Your task to perform on an android device: open app "LiveIn - Share Your Moment" (install if not already installed), go to login, and select forgot password Image 0: 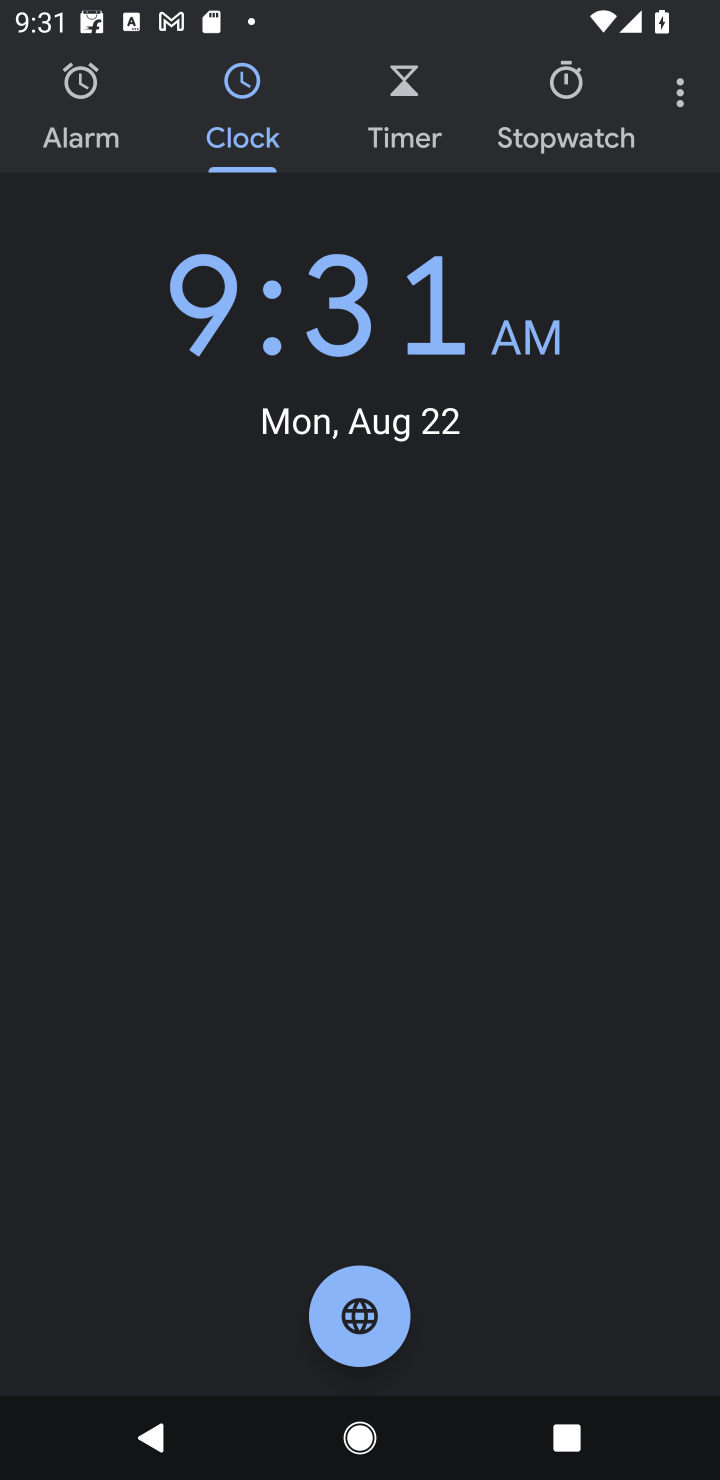
Step 0: press home button
Your task to perform on an android device: open app "LiveIn - Share Your Moment" (install if not already installed), go to login, and select forgot password Image 1: 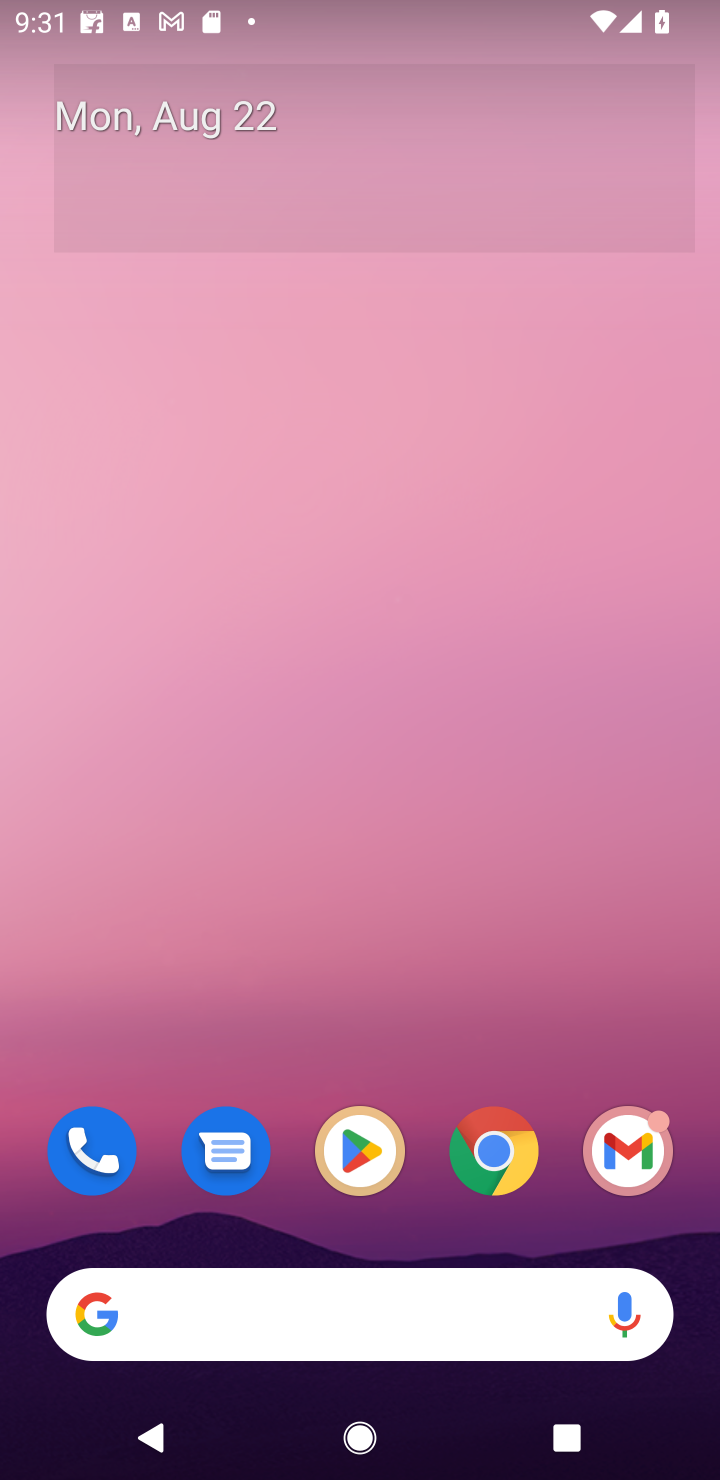
Step 1: click (349, 1167)
Your task to perform on an android device: open app "LiveIn - Share Your Moment" (install if not already installed), go to login, and select forgot password Image 2: 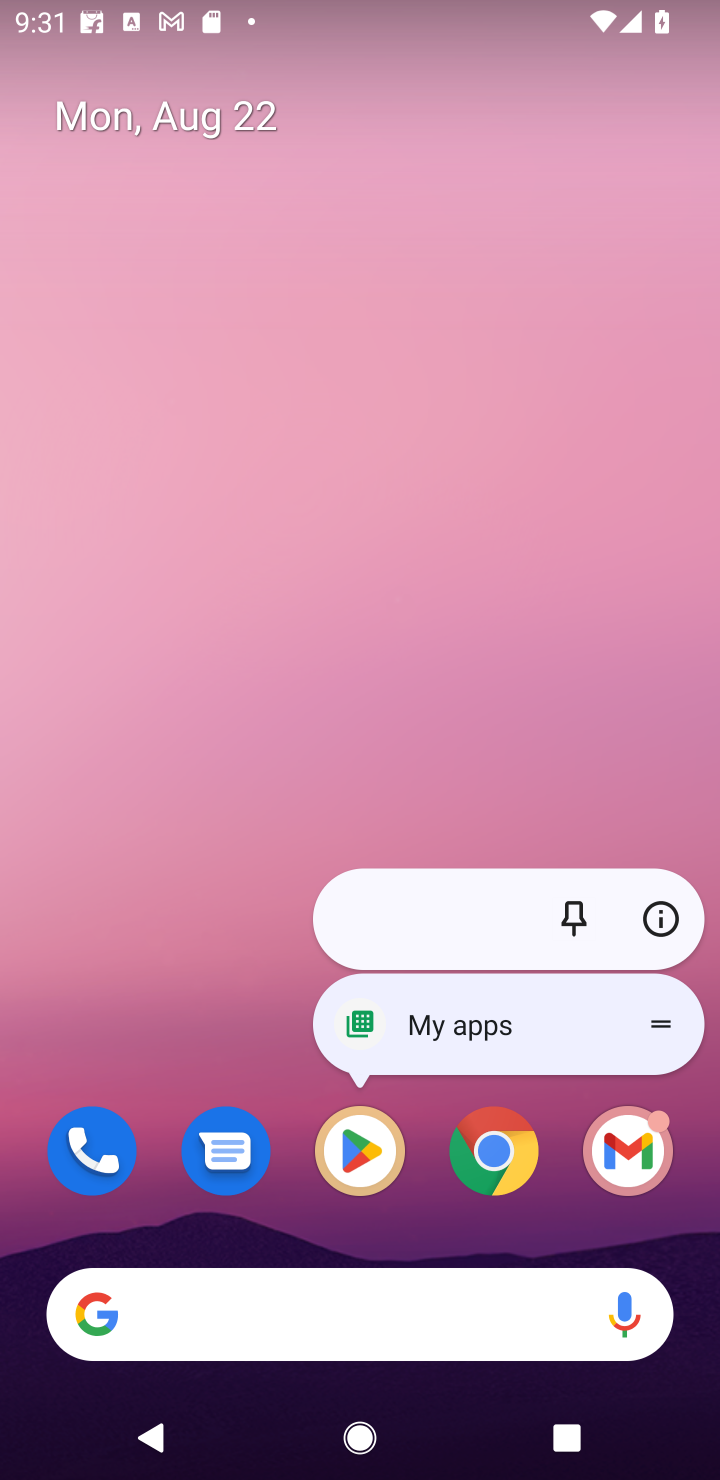
Step 2: click (349, 1163)
Your task to perform on an android device: open app "LiveIn - Share Your Moment" (install if not already installed), go to login, and select forgot password Image 3: 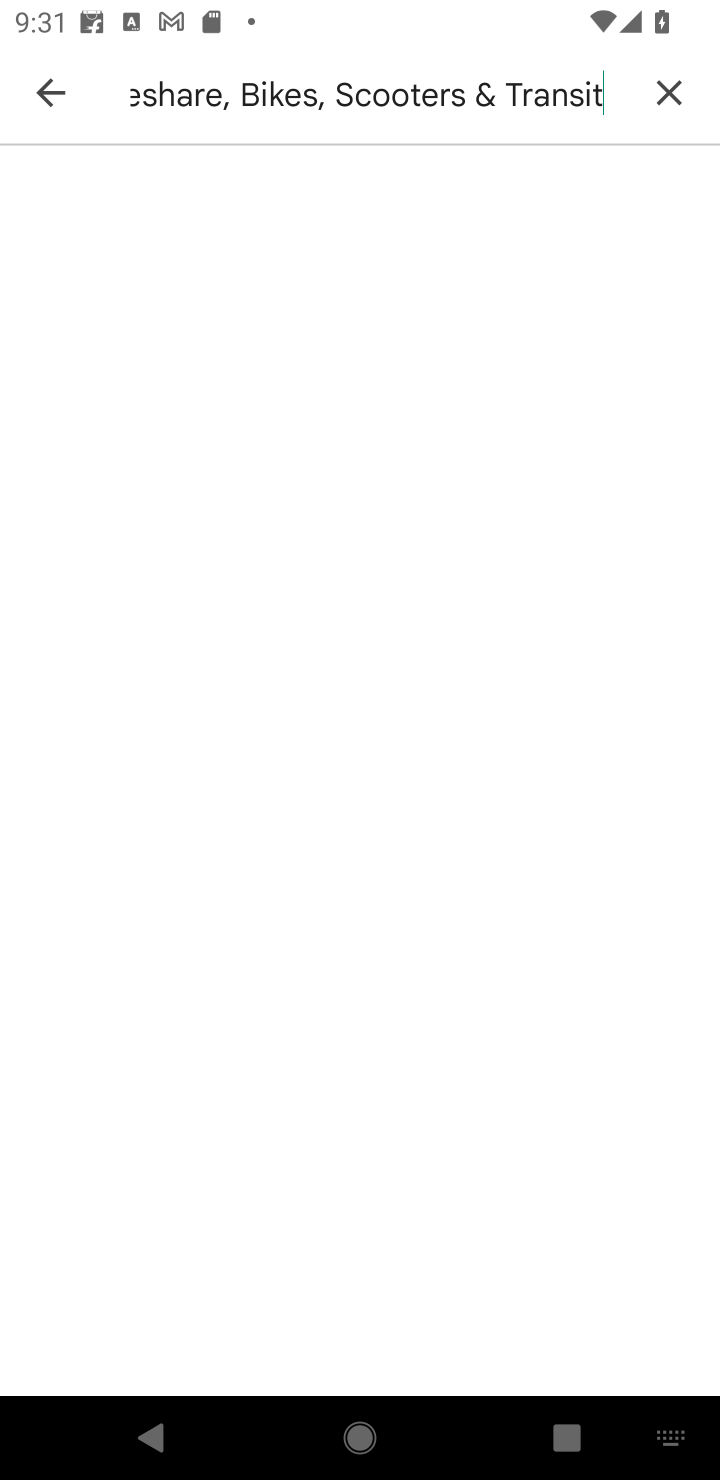
Step 3: click (674, 64)
Your task to perform on an android device: open app "LiveIn - Share Your Moment" (install if not already installed), go to login, and select forgot password Image 4: 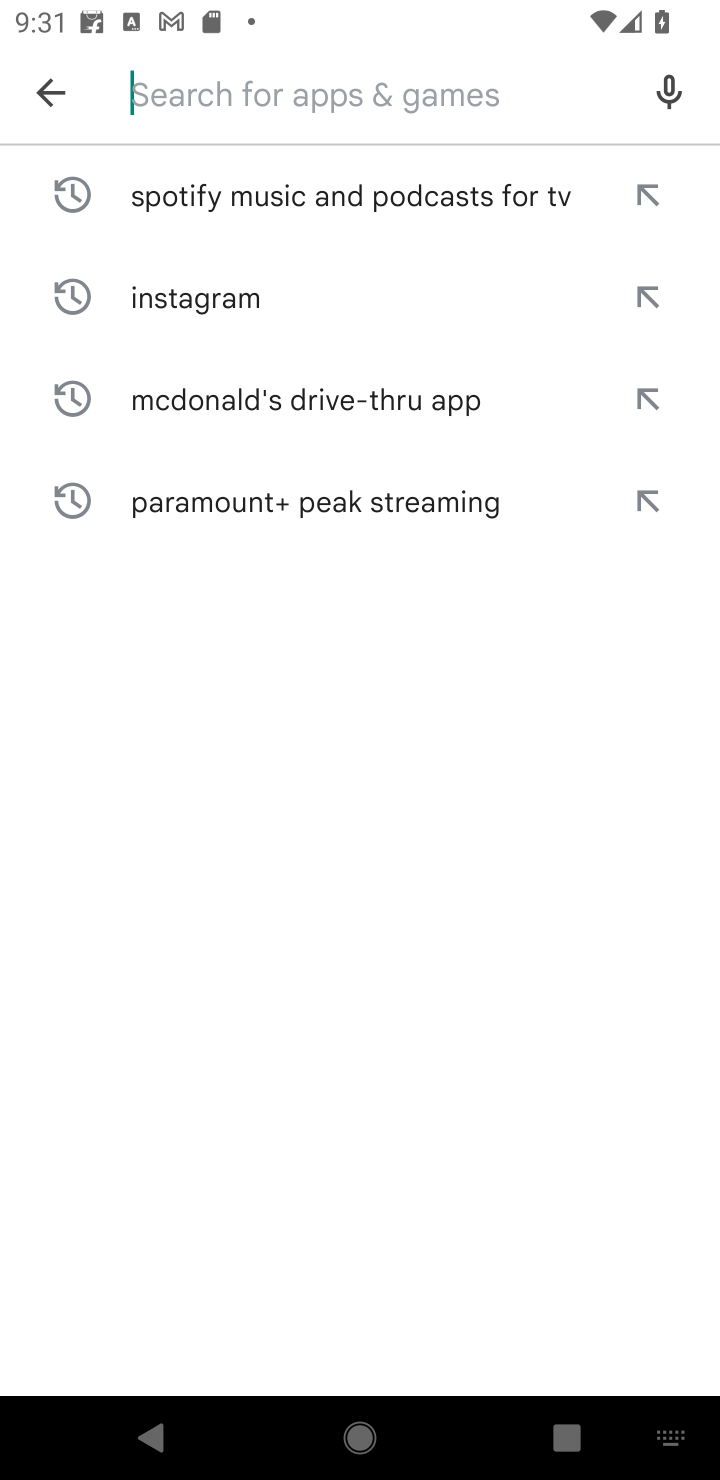
Step 4: type "LiveIn - Share Your Moment"
Your task to perform on an android device: open app "LiveIn - Share Your Moment" (install if not already installed), go to login, and select forgot password Image 5: 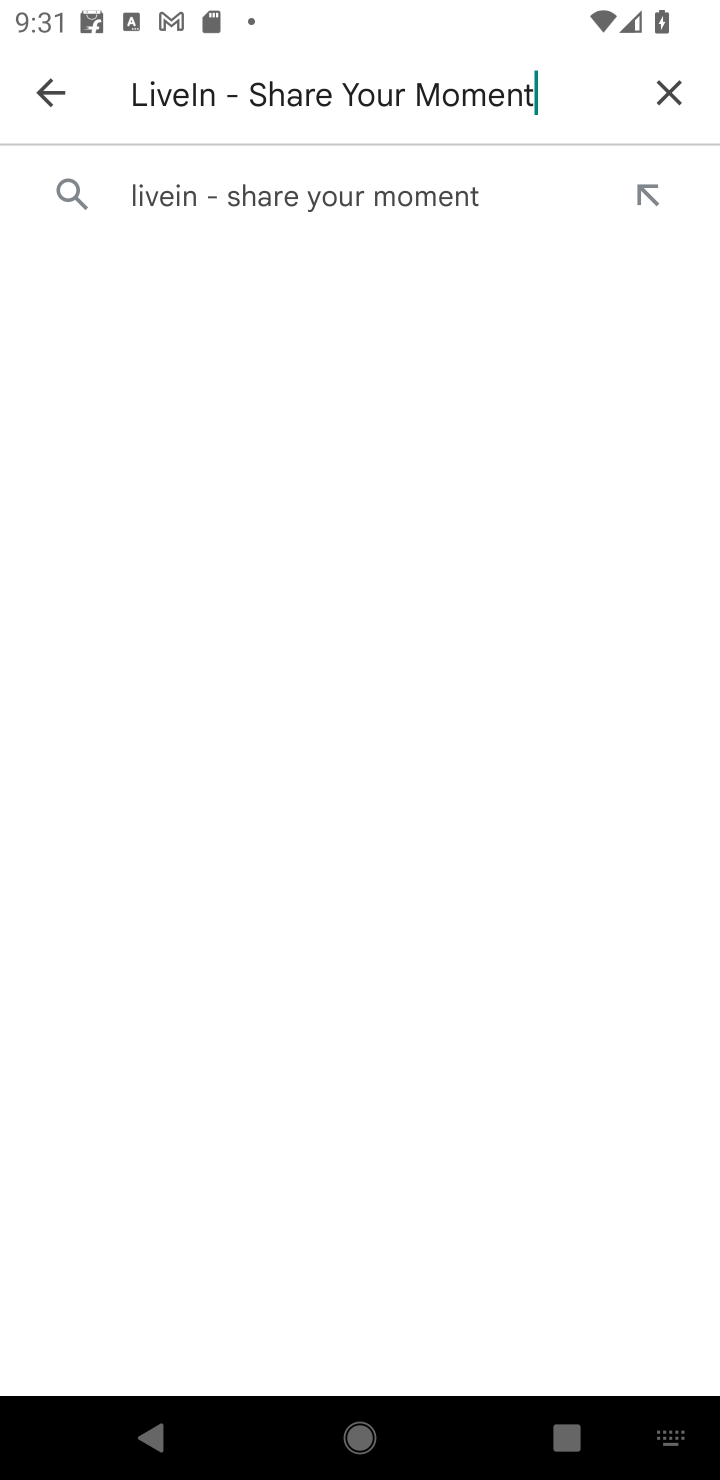
Step 5: click (301, 182)
Your task to perform on an android device: open app "LiveIn - Share Your Moment" (install if not already installed), go to login, and select forgot password Image 6: 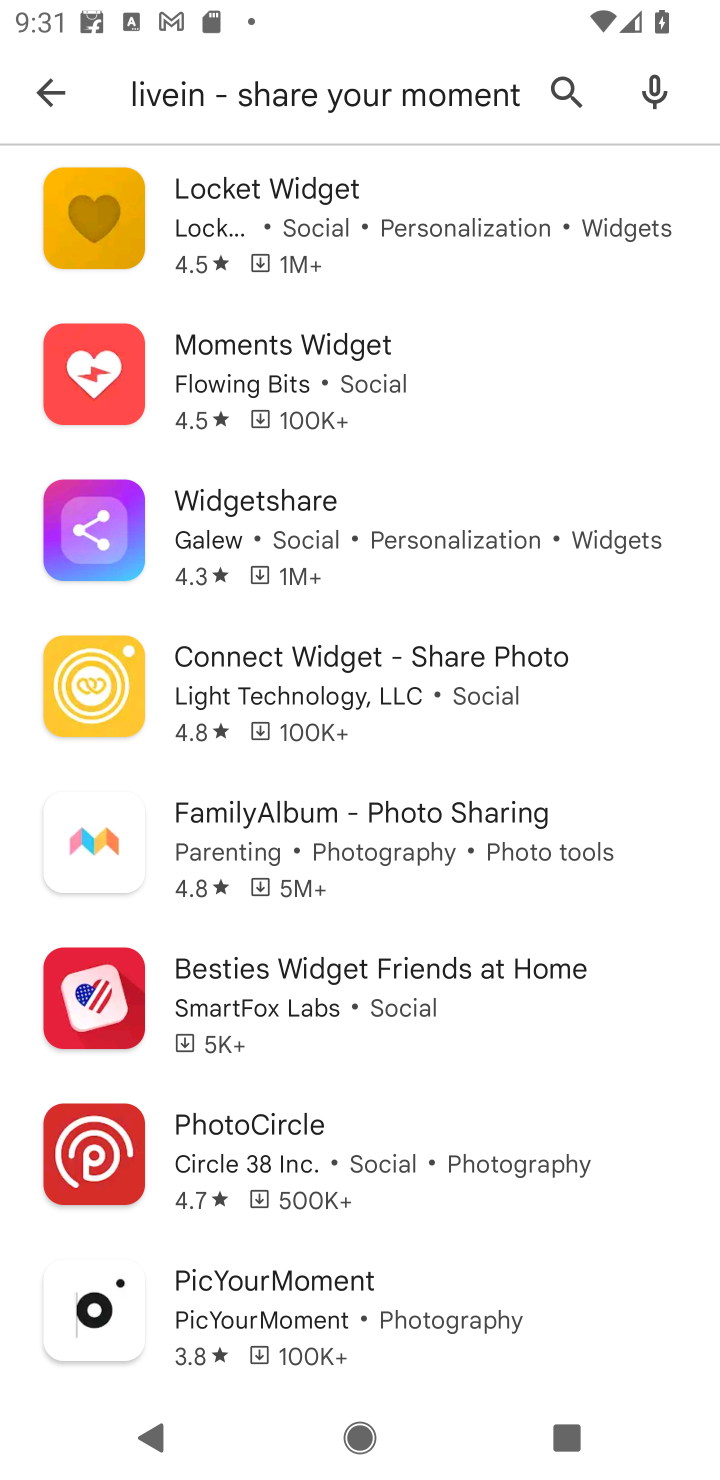
Step 6: task complete